Your task to perform on an android device: Show me some nice wallpapers for my tablet Image 0: 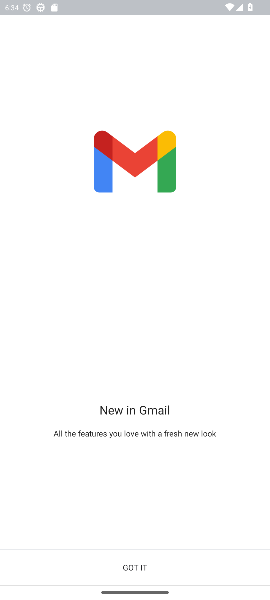
Step 0: press home button
Your task to perform on an android device: Show me some nice wallpapers for my tablet Image 1: 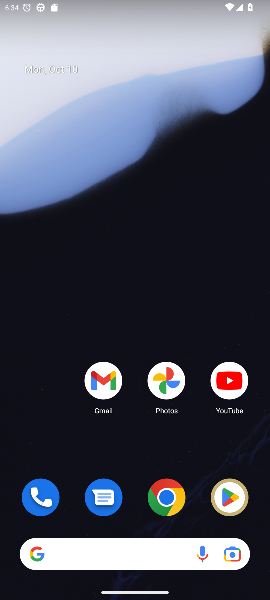
Step 1: drag from (132, 525) to (140, 213)
Your task to perform on an android device: Show me some nice wallpapers for my tablet Image 2: 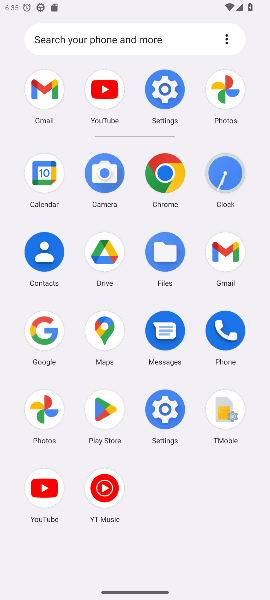
Step 2: click (41, 330)
Your task to perform on an android device: Show me some nice wallpapers for my tablet Image 3: 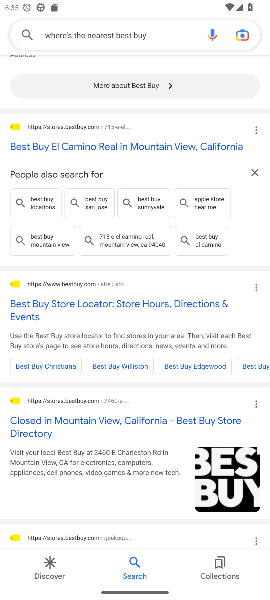
Step 3: click (159, 30)
Your task to perform on an android device: Show me some nice wallpapers for my tablet Image 4: 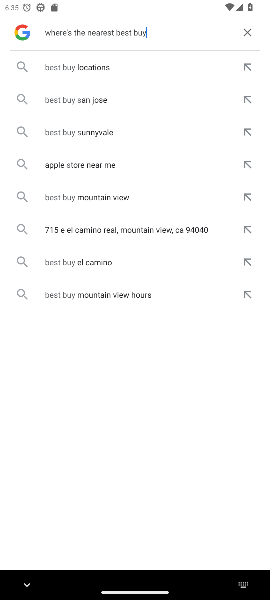
Step 4: click (249, 26)
Your task to perform on an android device: Show me some nice wallpapers for my tablet Image 5: 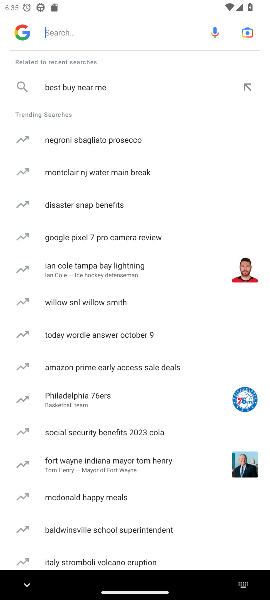
Step 5: click (69, 27)
Your task to perform on an android device: Show me some nice wallpapers for my tablet Image 6: 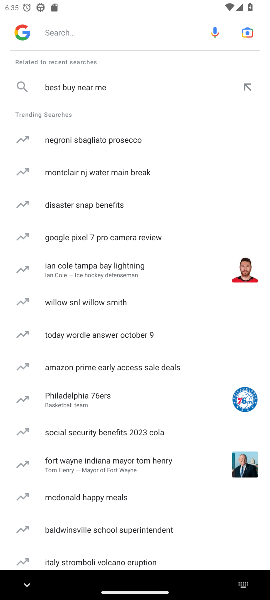
Step 6: type "Show me some nice wallpapers for my tablet "
Your task to perform on an android device: Show me some nice wallpapers for my tablet Image 7: 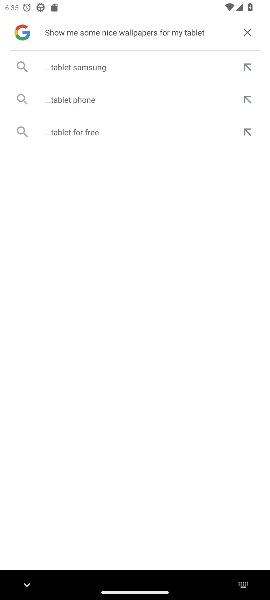
Step 7: click (103, 64)
Your task to perform on an android device: Show me some nice wallpapers for my tablet Image 8: 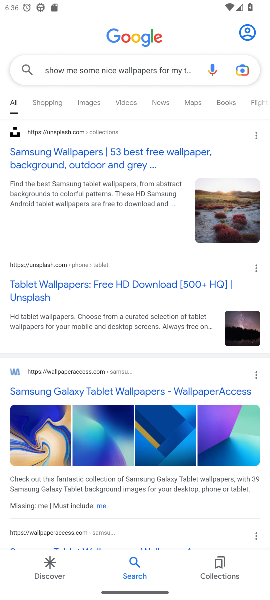
Step 8: click (80, 150)
Your task to perform on an android device: Show me some nice wallpapers for my tablet Image 9: 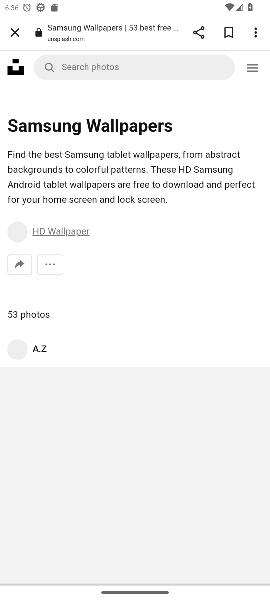
Step 9: task complete